Your task to perform on an android device: open wifi settings Image 0: 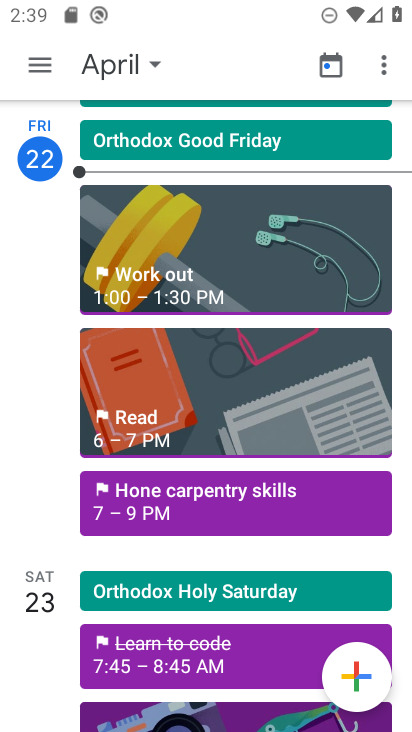
Step 0: press home button
Your task to perform on an android device: open wifi settings Image 1: 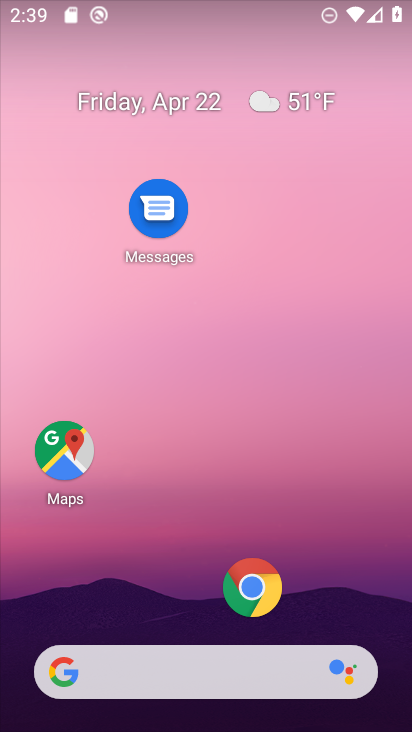
Step 1: drag from (190, 606) to (216, 134)
Your task to perform on an android device: open wifi settings Image 2: 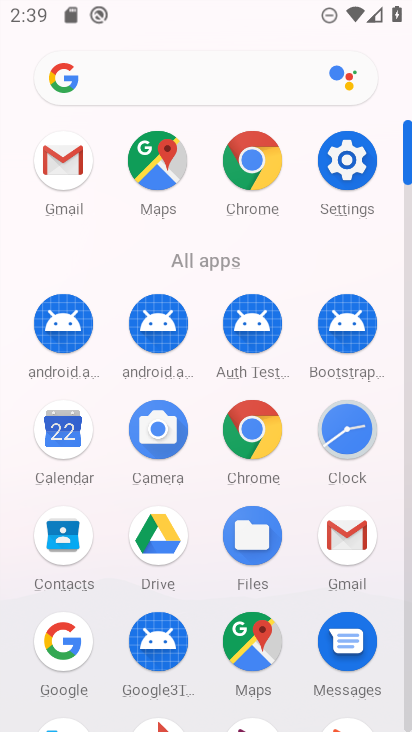
Step 2: click (355, 169)
Your task to perform on an android device: open wifi settings Image 3: 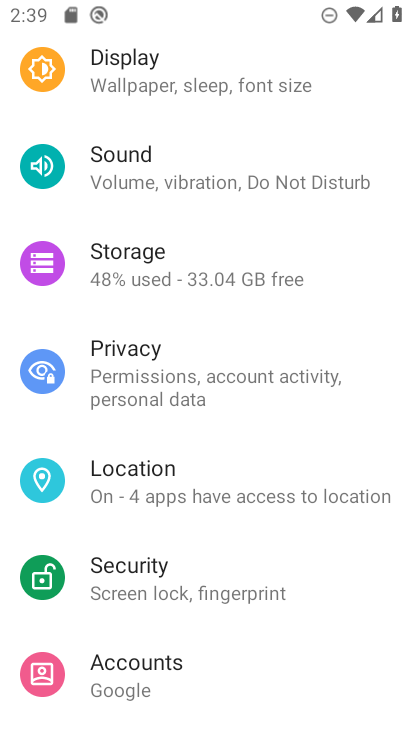
Step 3: drag from (192, 111) to (189, 508)
Your task to perform on an android device: open wifi settings Image 4: 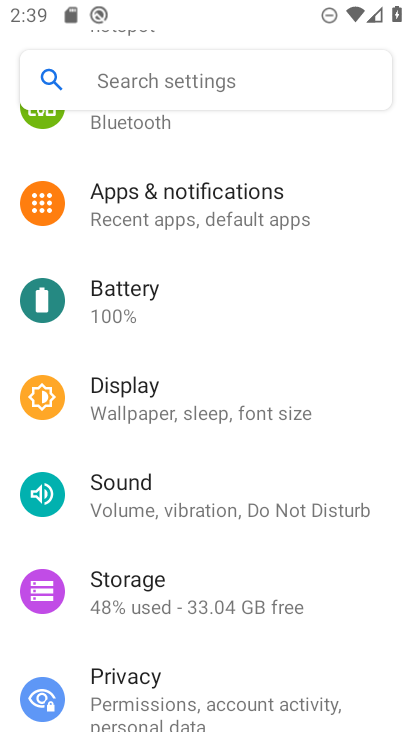
Step 4: drag from (227, 196) to (232, 487)
Your task to perform on an android device: open wifi settings Image 5: 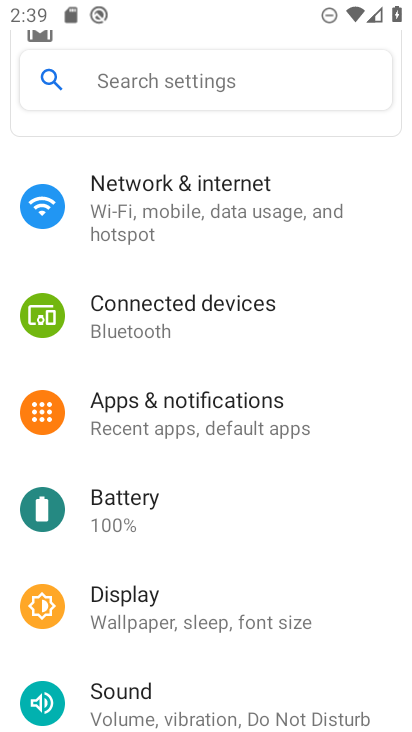
Step 5: click (204, 218)
Your task to perform on an android device: open wifi settings Image 6: 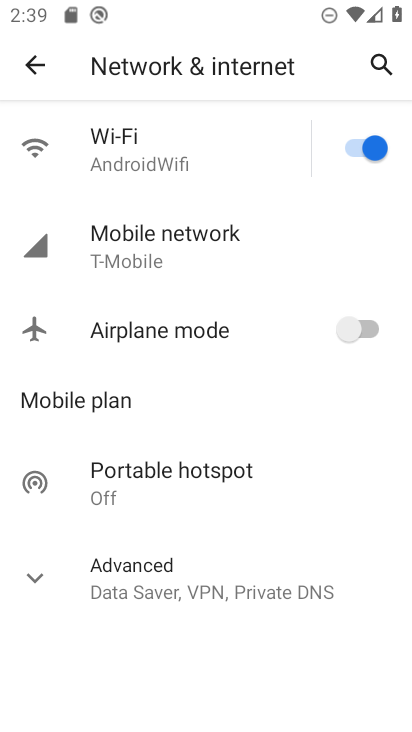
Step 6: click (186, 144)
Your task to perform on an android device: open wifi settings Image 7: 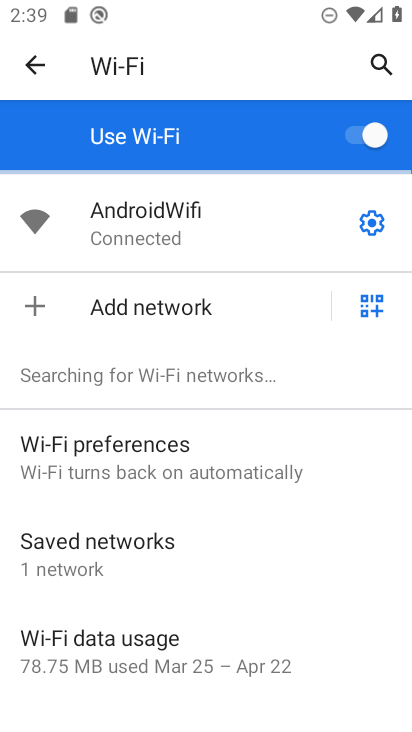
Step 7: task complete